Your task to perform on an android device: What is the recent news? Image 0: 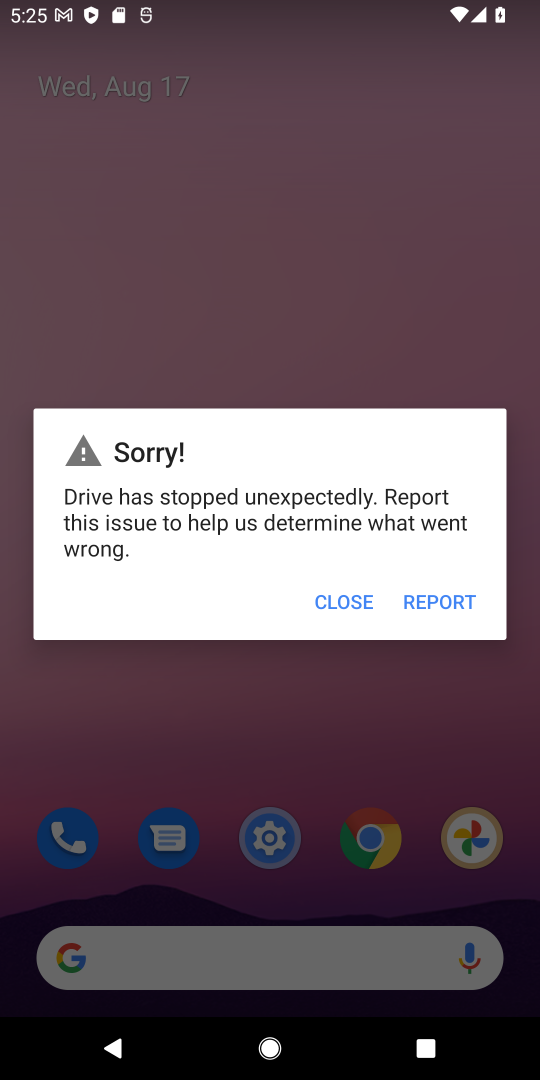
Step 0: click (304, 601)
Your task to perform on an android device: What is the recent news? Image 1: 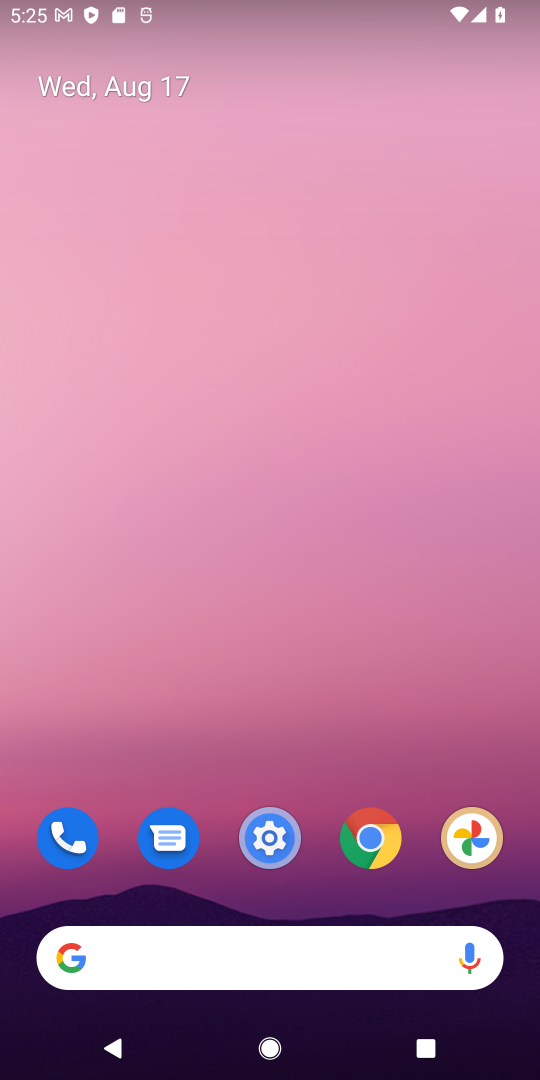
Step 1: click (269, 963)
Your task to perform on an android device: What is the recent news? Image 2: 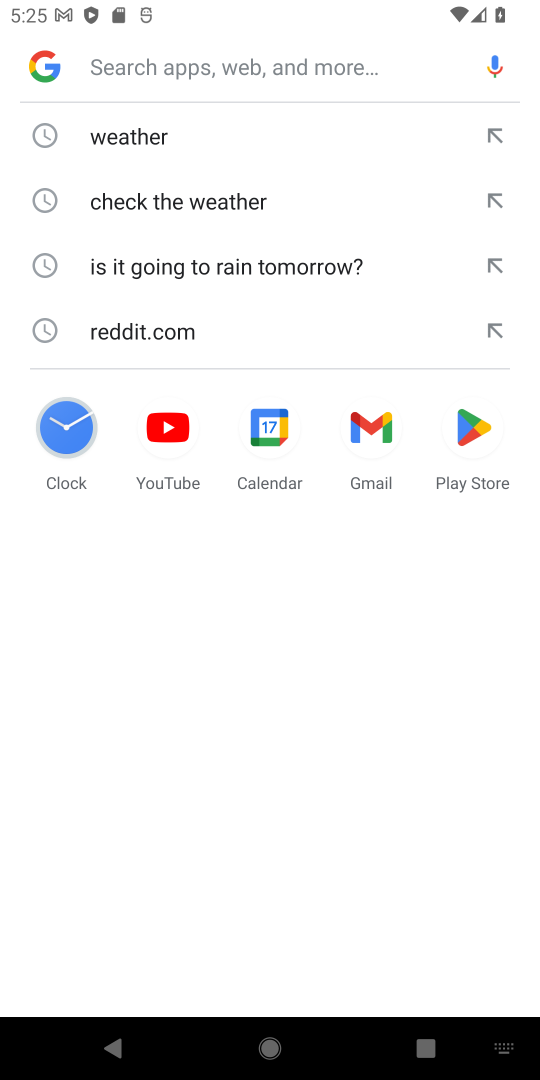
Step 2: type "recent news"
Your task to perform on an android device: What is the recent news? Image 3: 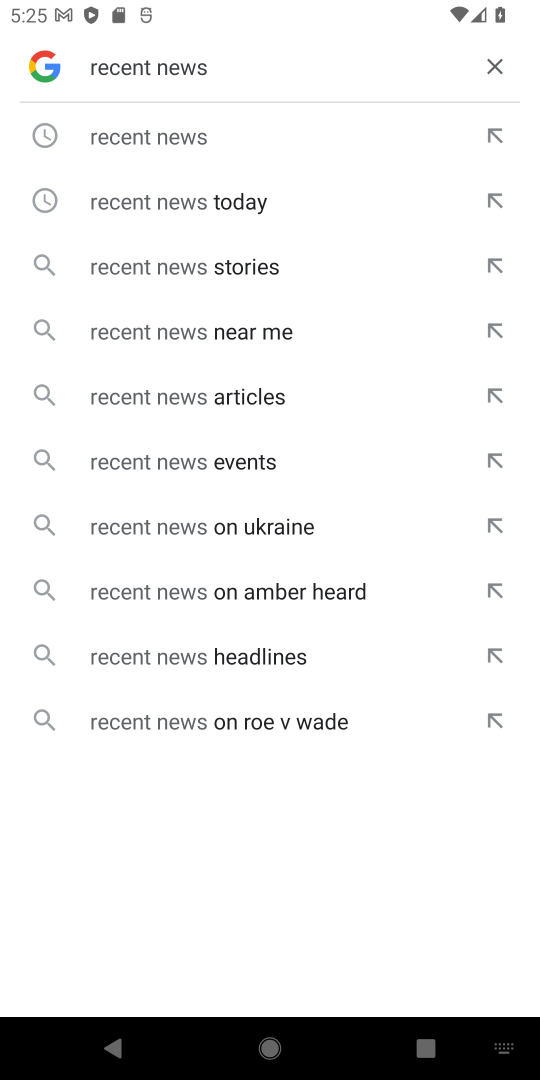
Step 3: click (128, 140)
Your task to perform on an android device: What is the recent news? Image 4: 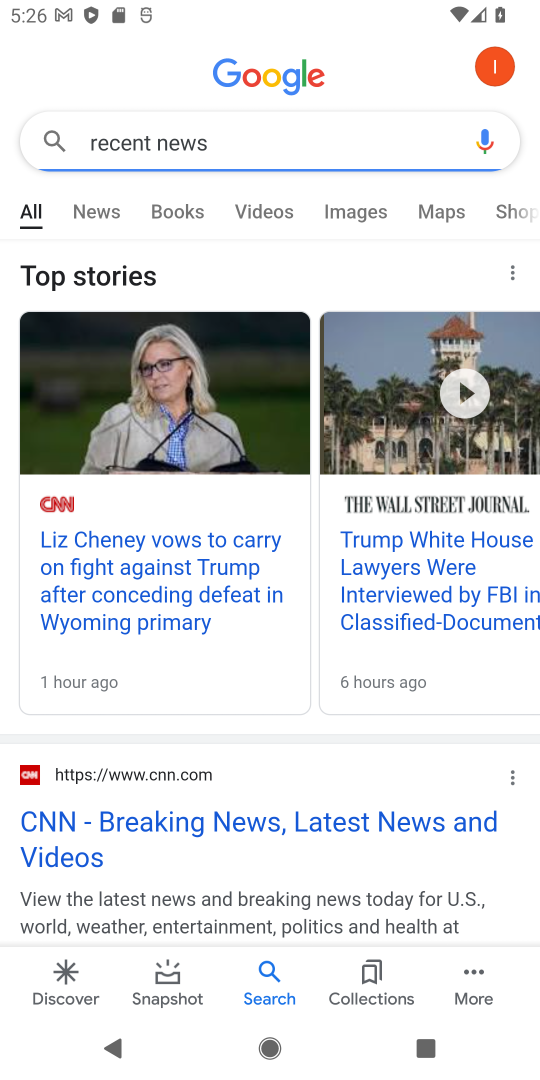
Step 4: click (110, 220)
Your task to perform on an android device: What is the recent news? Image 5: 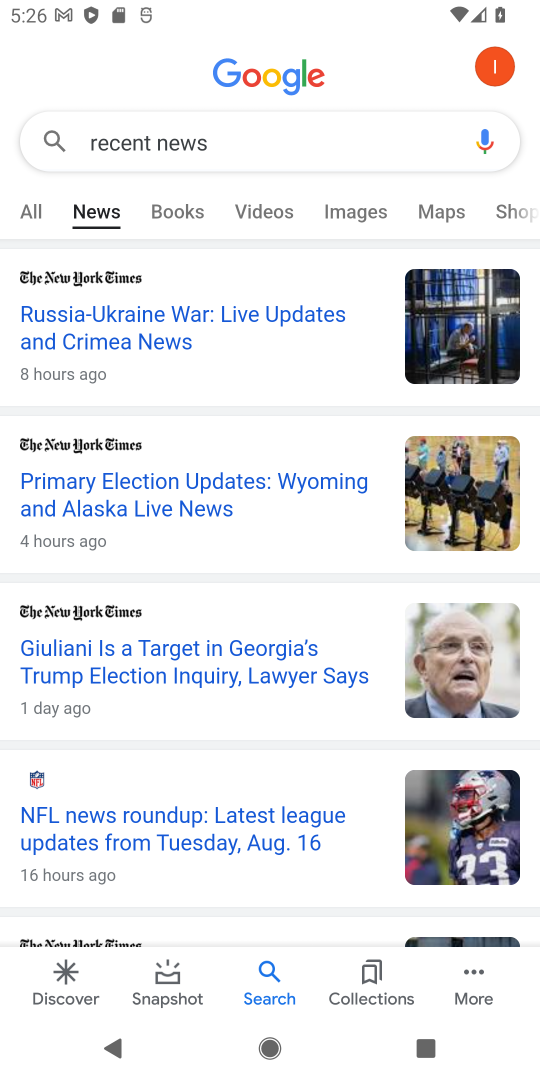
Step 5: task complete